Your task to perform on an android device: Open Google Chrome Image 0: 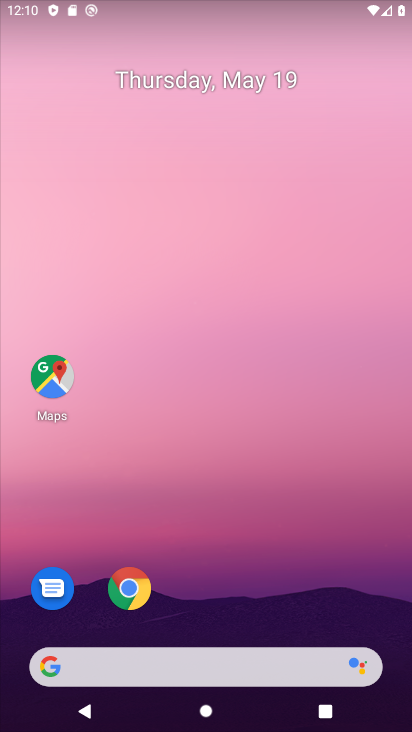
Step 0: click (131, 585)
Your task to perform on an android device: Open Google Chrome Image 1: 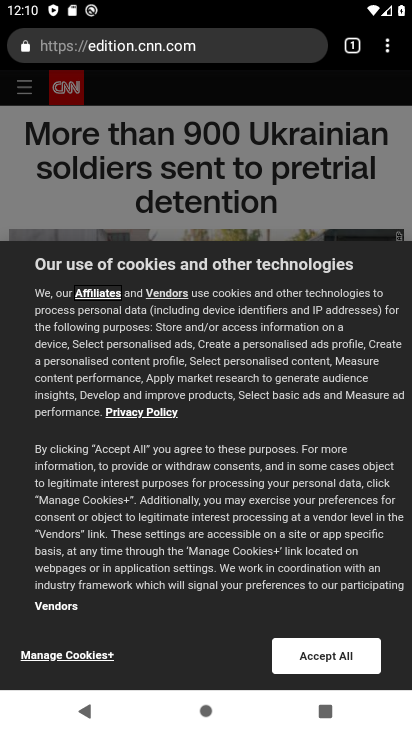
Step 1: task complete